Your task to perform on an android device: Check the news Image 0: 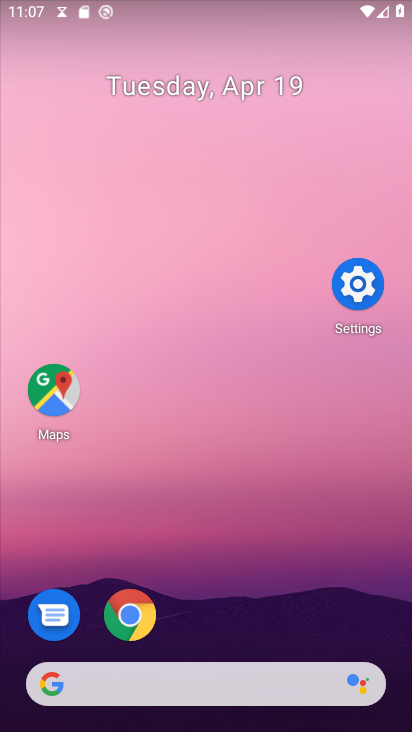
Step 0: drag from (173, 611) to (319, 81)
Your task to perform on an android device: Check the news Image 1: 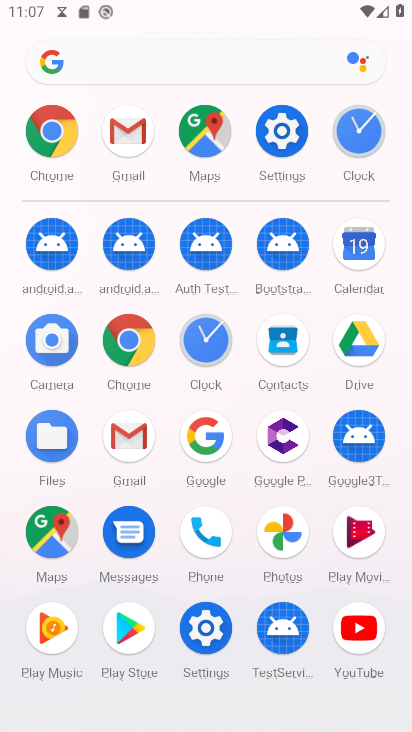
Step 1: click (131, 339)
Your task to perform on an android device: Check the news Image 2: 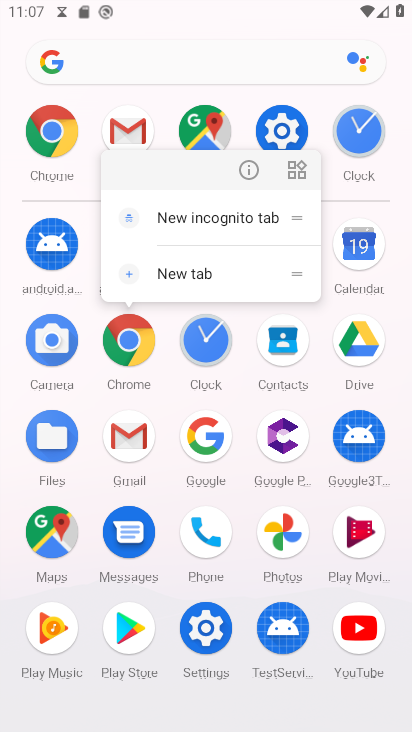
Step 2: click (249, 170)
Your task to perform on an android device: Check the news Image 3: 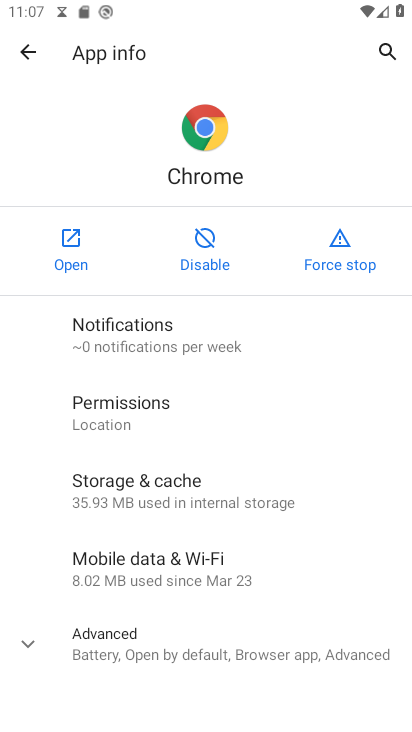
Step 3: click (64, 252)
Your task to perform on an android device: Check the news Image 4: 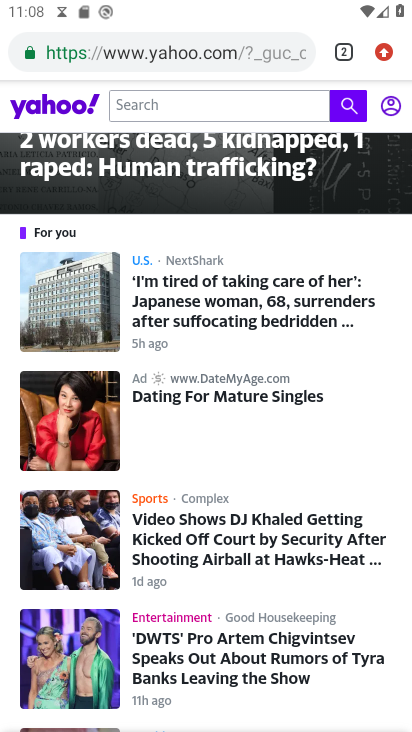
Step 4: click (193, 63)
Your task to perform on an android device: Check the news Image 5: 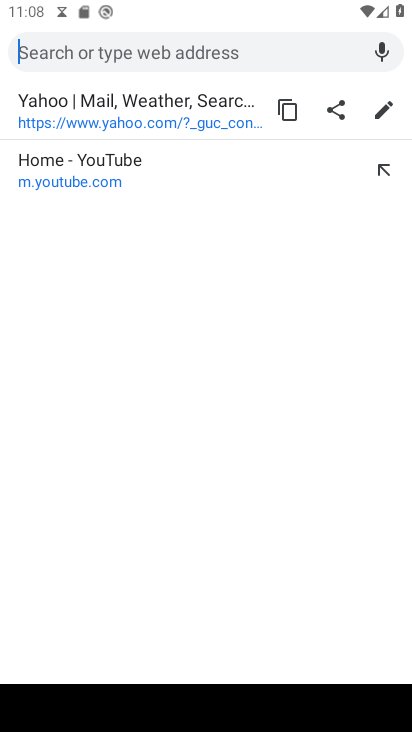
Step 5: click (235, 53)
Your task to perform on an android device: Check the news Image 6: 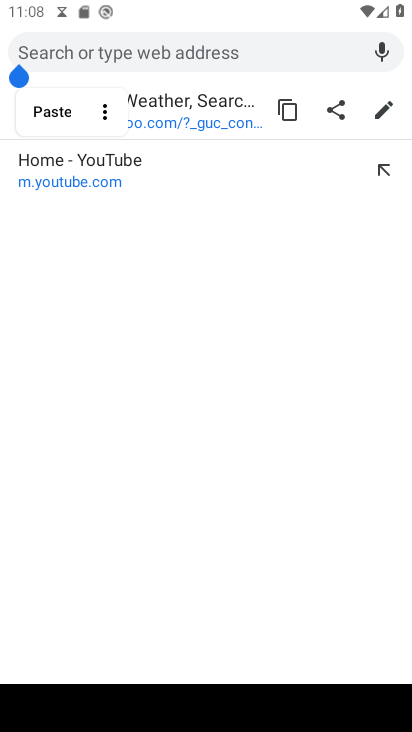
Step 6: type "news"
Your task to perform on an android device: Check the news Image 7: 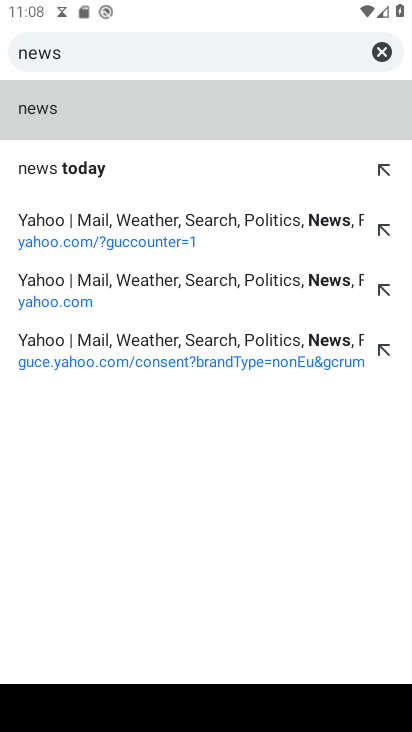
Step 7: click (27, 110)
Your task to perform on an android device: Check the news Image 8: 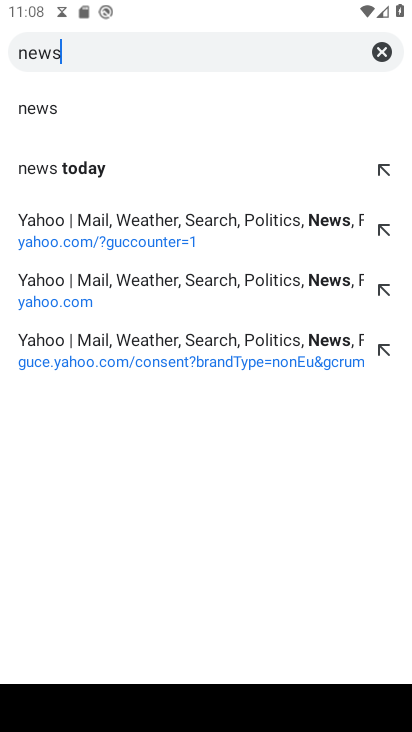
Step 8: click (54, 96)
Your task to perform on an android device: Check the news Image 9: 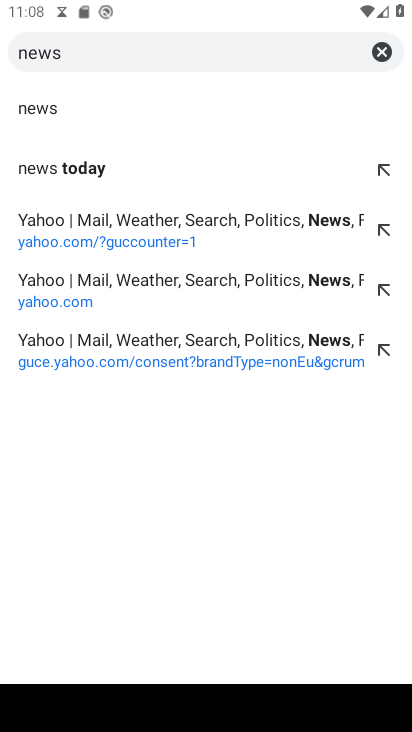
Step 9: task complete